Your task to perform on an android device: check out phone information Image 0: 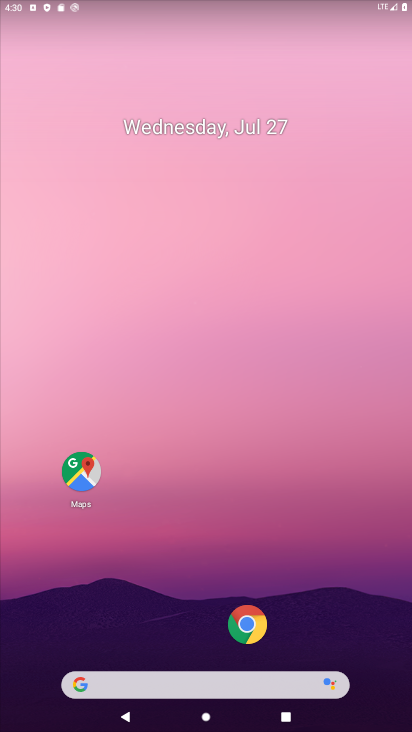
Step 0: drag from (151, 647) to (203, 225)
Your task to perform on an android device: check out phone information Image 1: 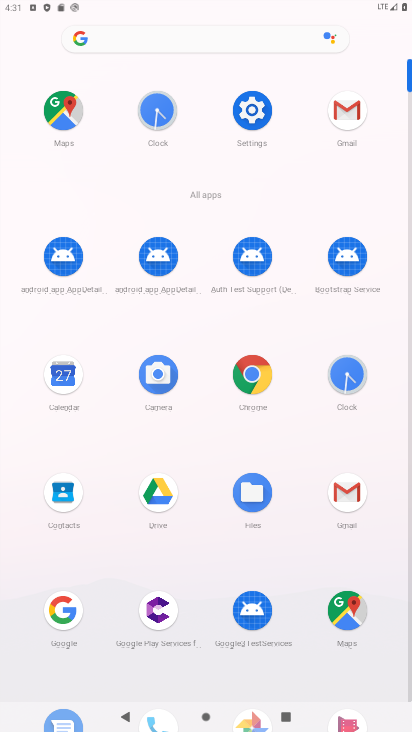
Step 1: click (256, 127)
Your task to perform on an android device: check out phone information Image 2: 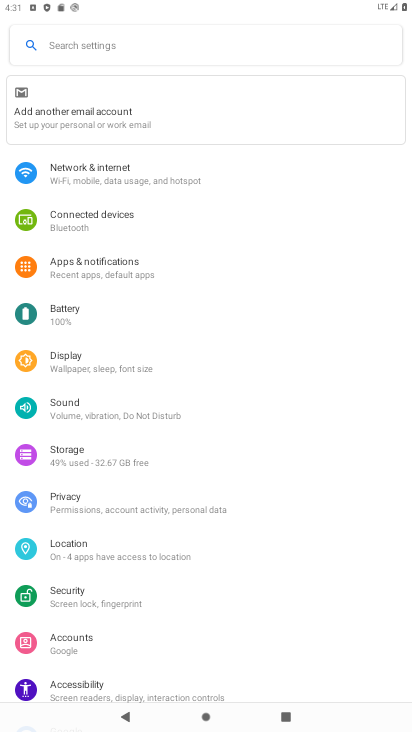
Step 2: task complete